Your task to perform on an android device: What is the news today? Image 0: 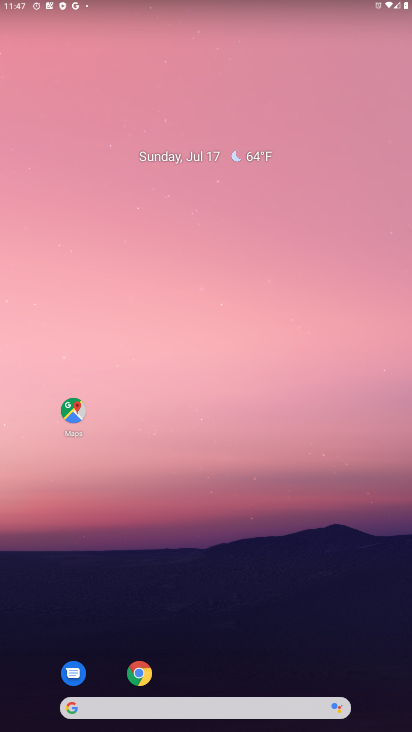
Step 0: drag from (216, 676) to (259, 196)
Your task to perform on an android device: What is the news today? Image 1: 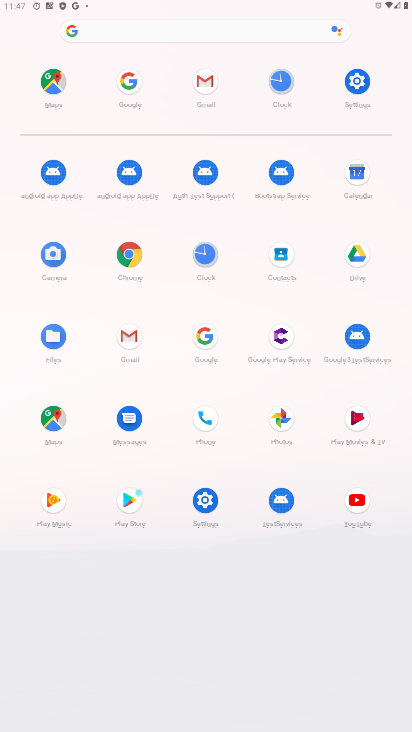
Step 1: click (203, 327)
Your task to perform on an android device: What is the news today? Image 2: 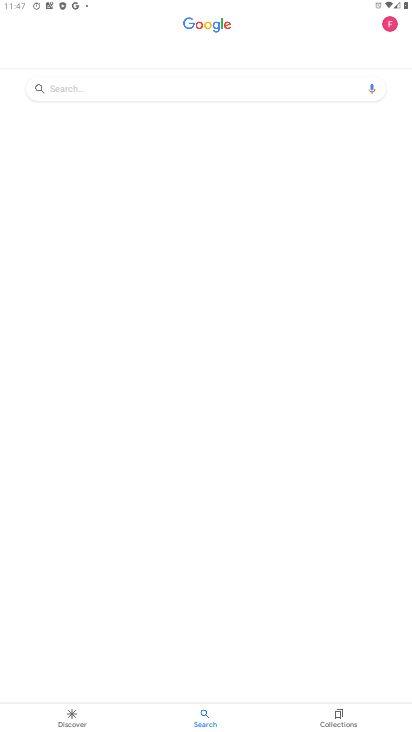
Step 2: click (139, 83)
Your task to perform on an android device: What is the news today? Image 3: 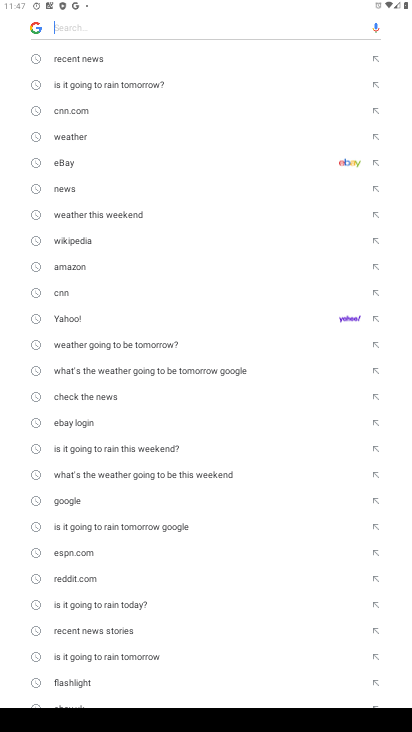
Step 3: click (71, 185)
Your task to perform on an android device: What is the news today? Image 4: 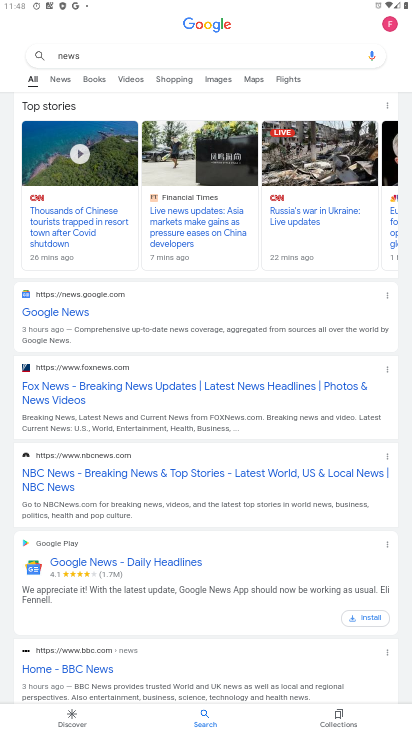
Step 4: task complete